Your task to perform on an android device: Open Maps and search for coffee Image 0: 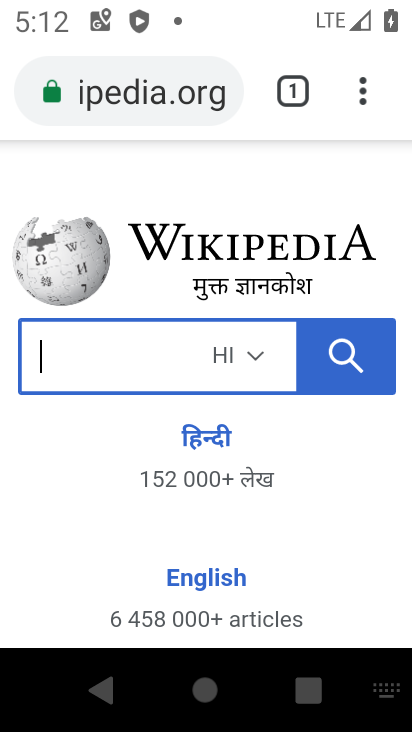
Step 0: press home button
Your task to perform on an android device: Open Maps and search for coffee Image 1: 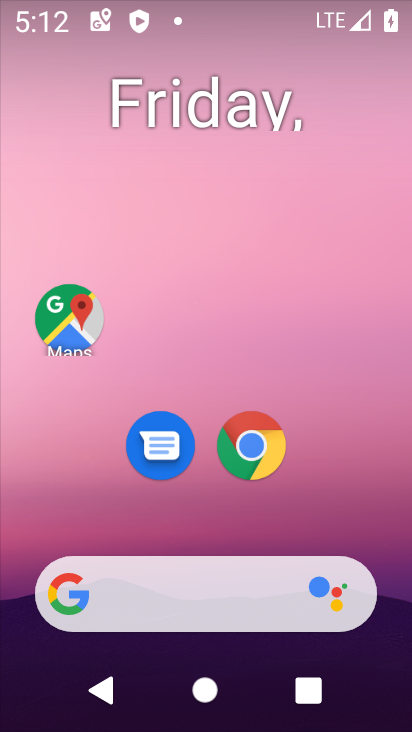
Step 1: click (83, 309)
Your task to perform on an android device: Open Maps and search for coffee Image 2: 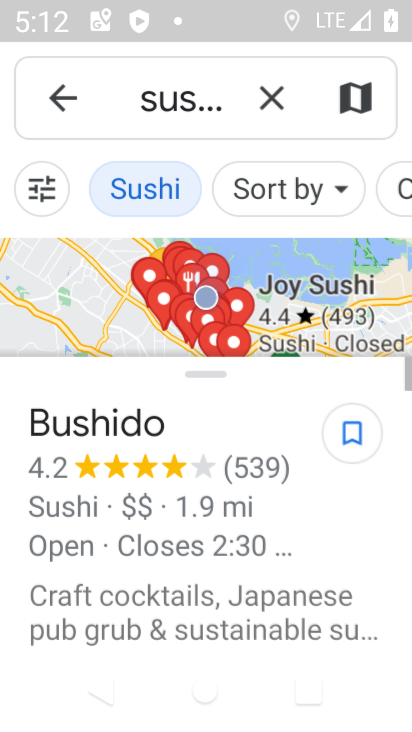
Step 2: click (252, 94)
Your task to perform on an android device: Open Maps and search for coffee Image 3: 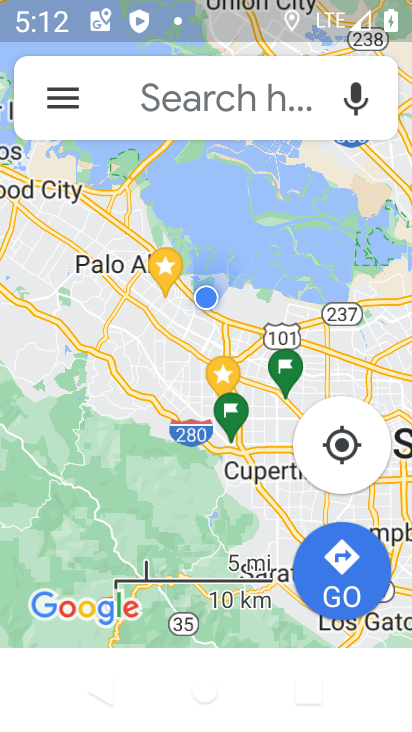
Step 3: click (252, 94)
Your task to perform on an android device: Open Maps and search for coffee Image 4: 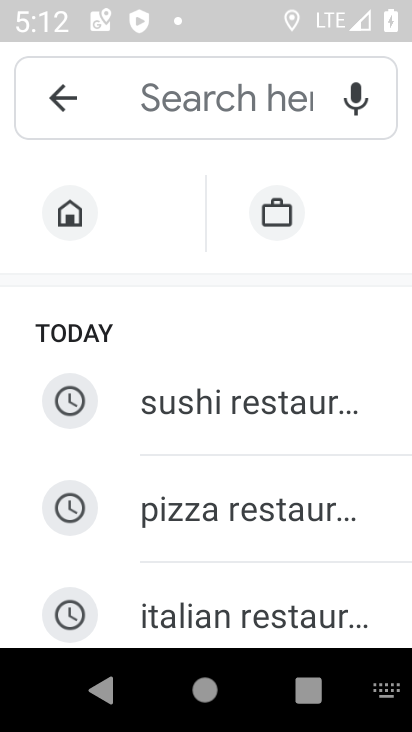
Step 4: drag from (153, 537) to (209, 255)
Your task to perform on an android device: Open Maps and search for coffee Image 5: 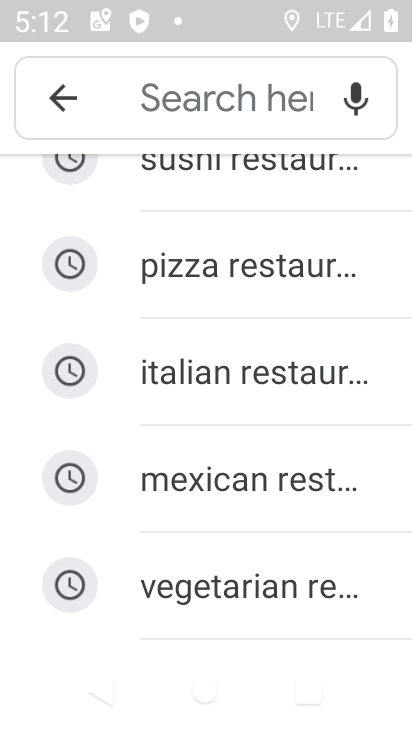
Step 5: drag from (255, 587) to (269, 291)
Your task to perform on an android device: Open Maps and search for coffee Image 6: 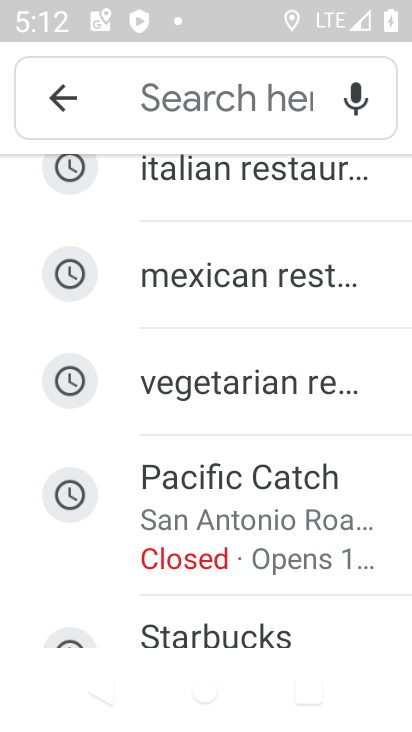
Step 6: drag from (231, 636) to (242, 489)
Your task to perform on an android device: Open Maps and search for coffee Image 7: 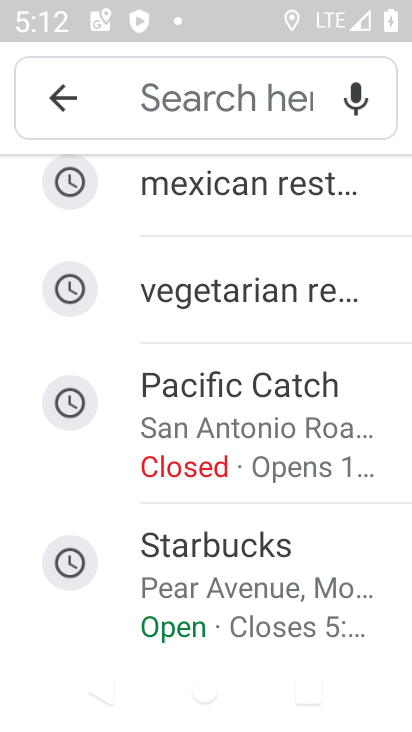
Step 7: click (255, 567)
Your task to perform on an android device: Open Maps and search for coffee Image 8: 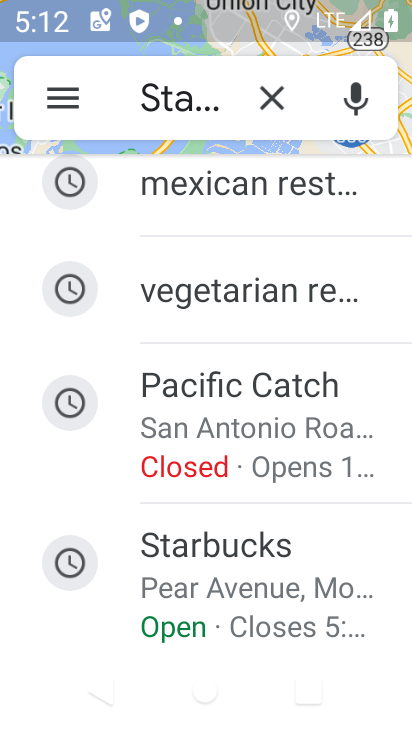
Step 8: task complete